Your task to perform on an android device: Show me productivity apps on the Play Store Image 0: 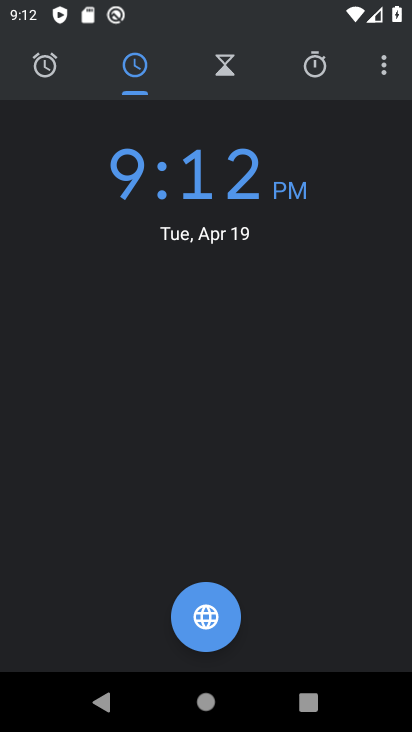
Step 0: press home button
Your task to perform on an android device: Show me productivity apps on the Play Store Image 1: 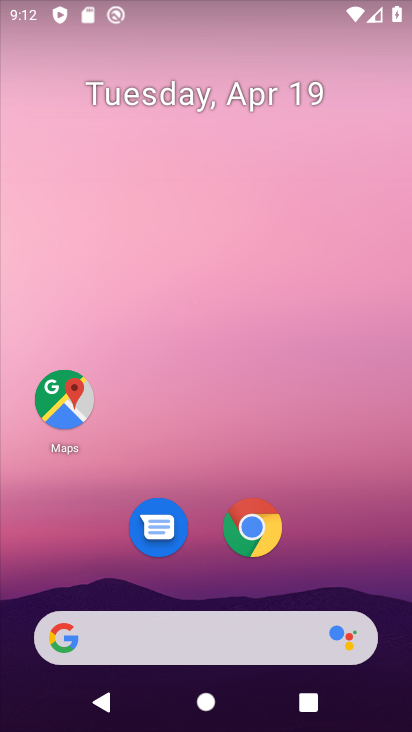
Step 1: drag from (234, 674) to (252, 52)
Your task to perform on an android device: Show me productivity apps on the Play Store Image 2: 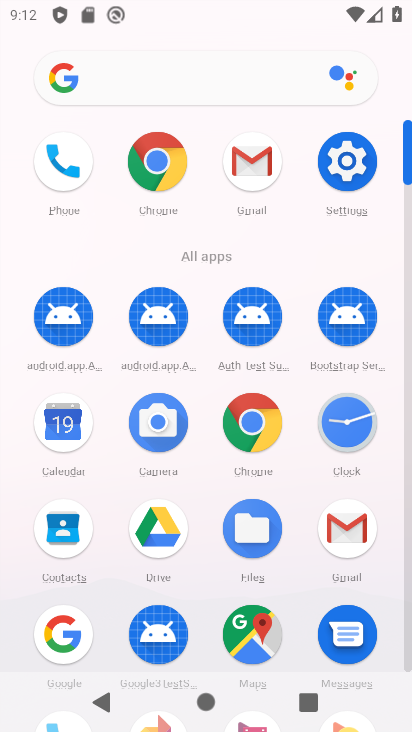
Step 2: drag from (197, 587) to (223, 101)
Your task to perform on an android device: Show me productivity apps on the Play Store Image 3: 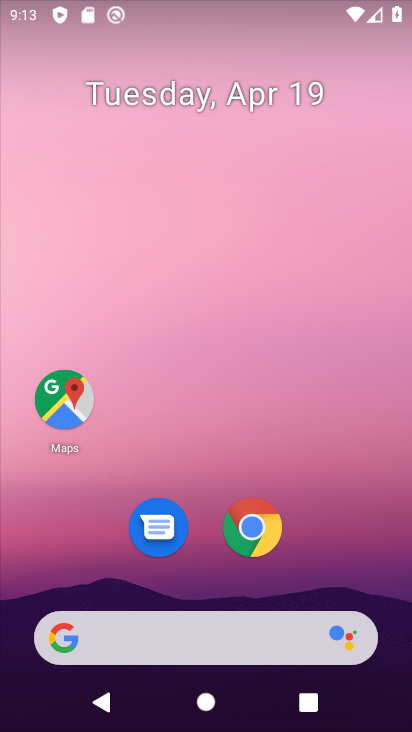
Step 3: drag from (253, 668) to (289, 103)
Your task to perform on an android device: Show me productivity apps on the Play Store Image 4: 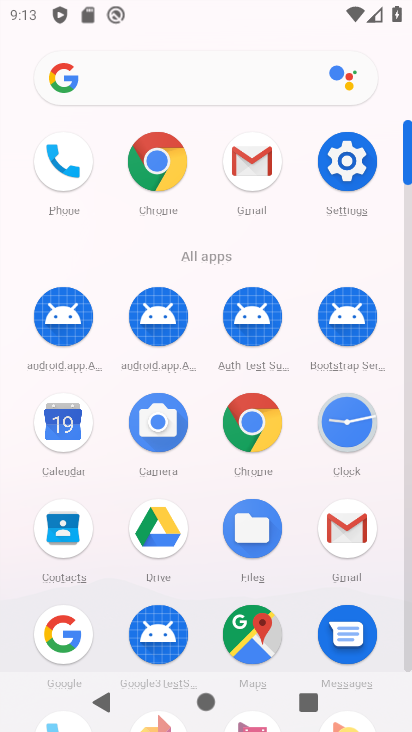
Step 4: drag from (202, 606) to (205, 434)
Your task to perform on an android device: Show me productivity apps on the Play Store Image 5: 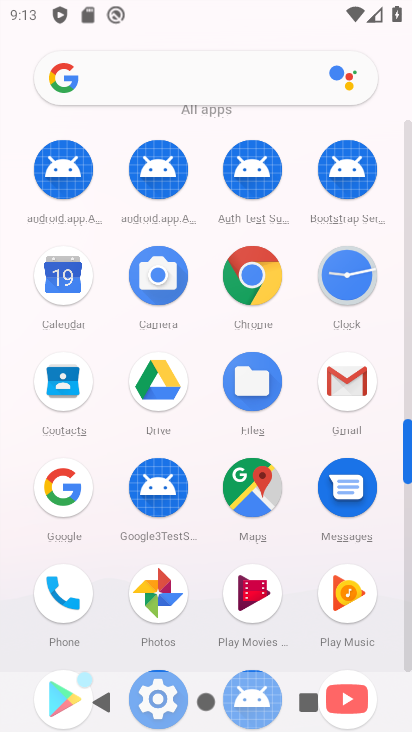
Step 5: click (64, 667)
Your task to perform on an android device: Show me productivity apps on the Play Store Image 6: 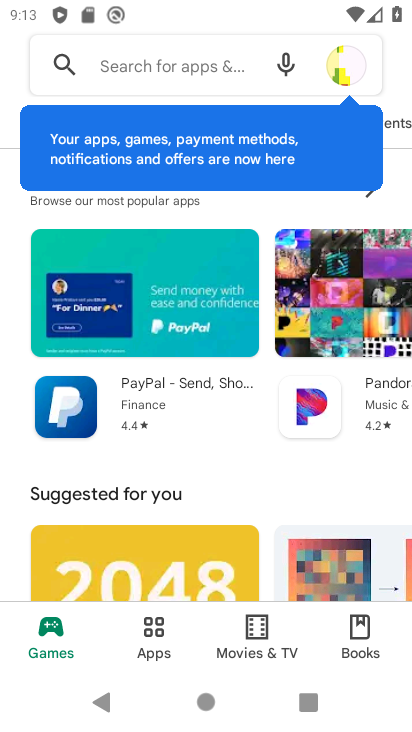
Step 6: click (150, 77)
Your task to perform on an android device: Show me productivity apps on the Play Store Image 7: 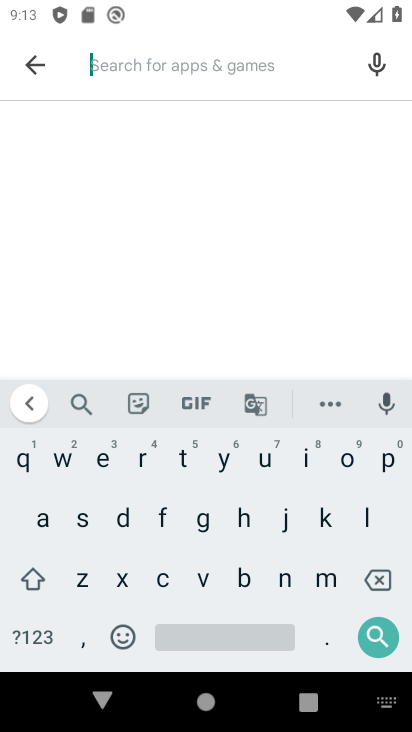
Step 7: click (384, 469)
Your task to perform on an android device: Show me productivity apps on the Play Store Image 8: 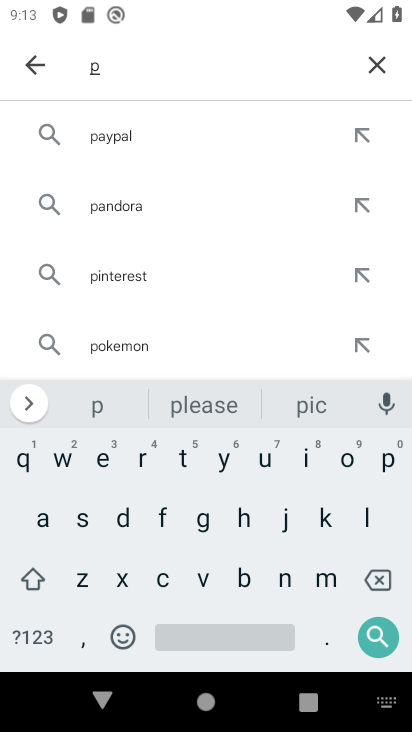
Step 8: click (137, 466)
Your task to perform on an android device: Show me productivity apps on the Play Store Image 9: 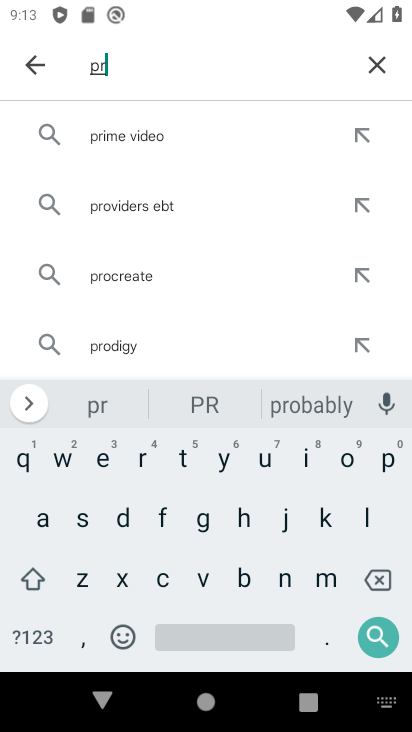
Step 9: click (347, 463)
Your task to perform on an android device: Show me productivity apps on the Play Store Image 10: 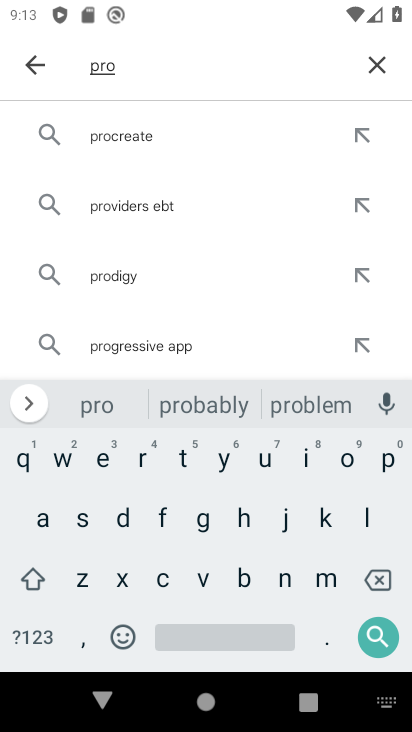
Step 10: click (127, 519)
Your task to perform on an android device: Show me productivity apps on the Play Store Image 11: 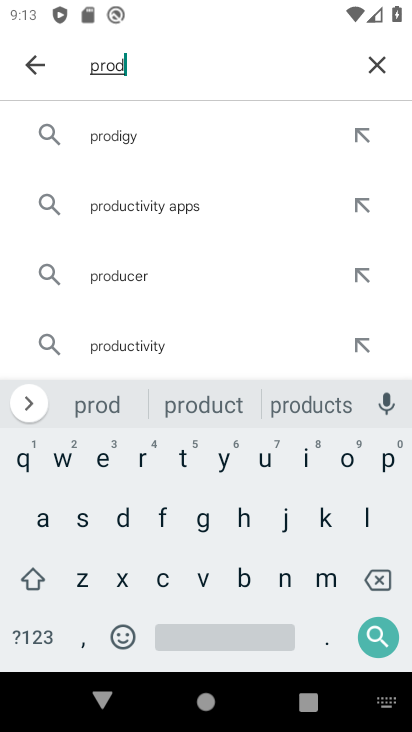
Step 11: click (148, 206)
Your task to perform on an android device: Show me productivity apps on the Play Store Image 12: 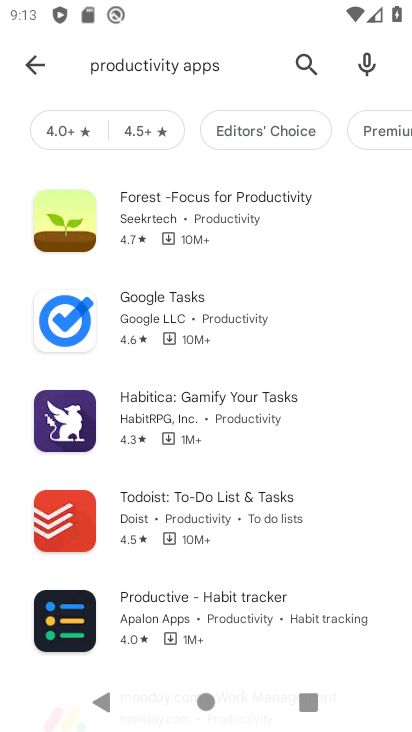
Step 12: task complete